Your task to perform on an android device: open a new tab in the chrome app Image 0: 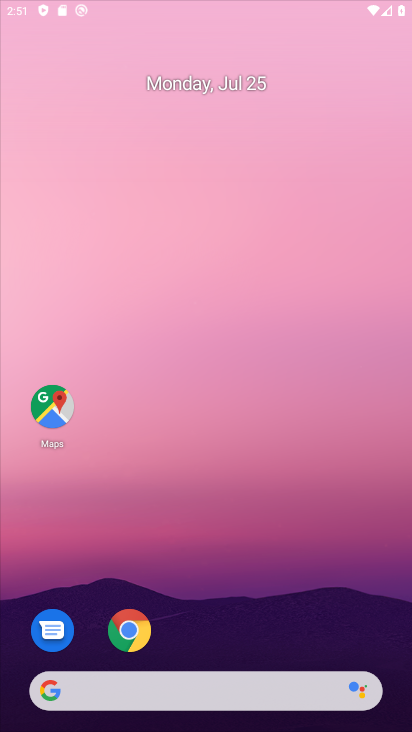
Step 0: drag from (269, 221) to (269, 182)
Your task to perform on an android device: open a new tab in the chrome app Image 1: 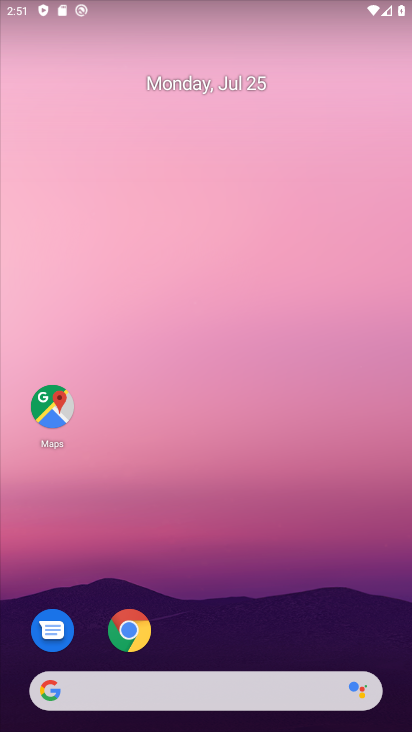
Step 1: drag from (297, 587) to (255, 220)
Your task to perform on an android device: open a new tab in the chrome app Image 2: 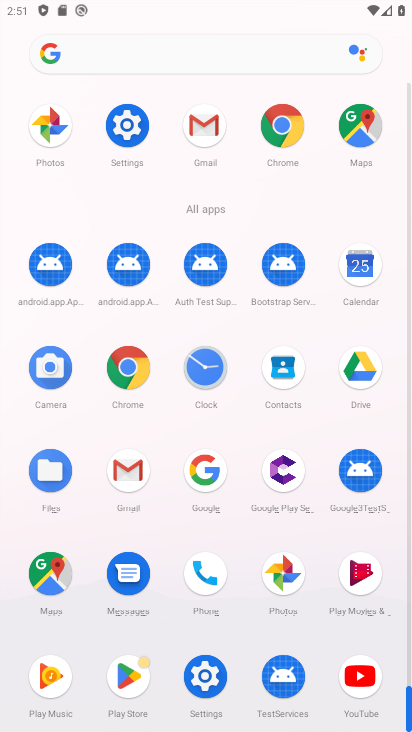
Step 2: click (285, 131)
Your task to perform on an android device: open a new tab in the chrome app Image 3: 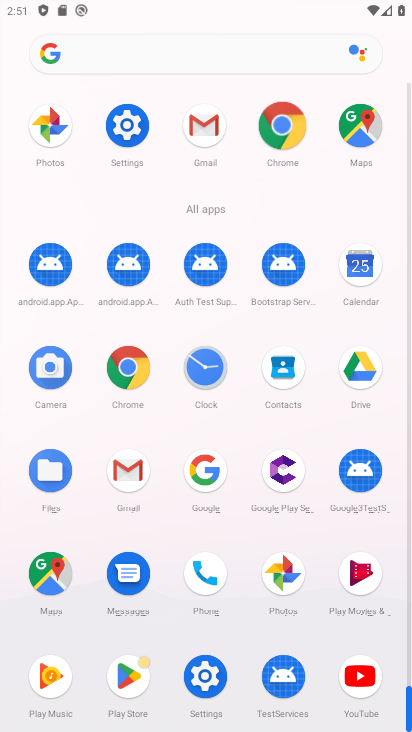
Step 3: click (295, 132)
Your task to perform on an android device: open a new tab in the chrome app Image 4: 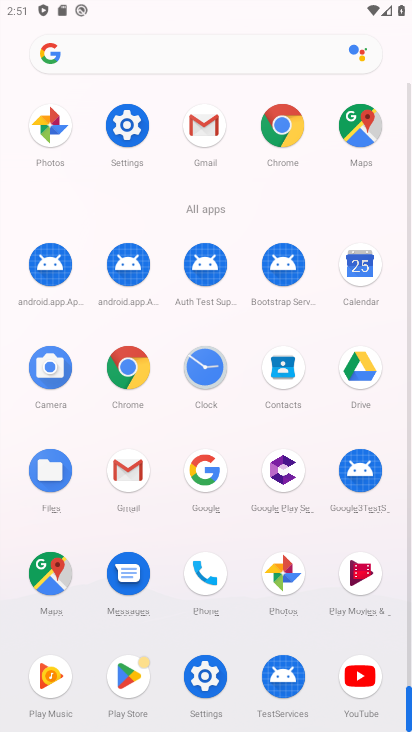
Step 4: click (286, 130)
Your task to perform on an android device: open a new tab in the chrome app Image 5: 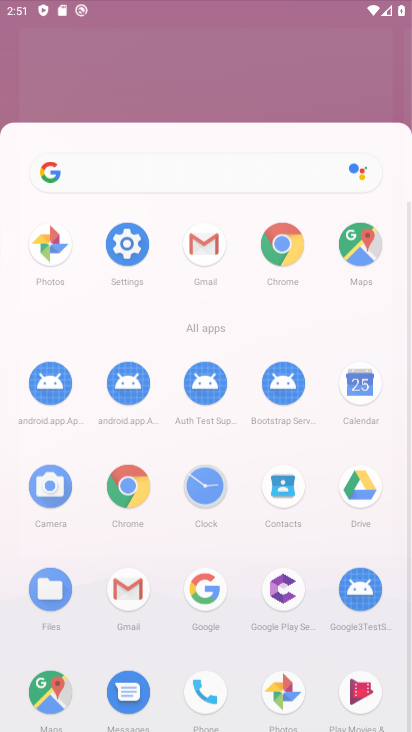
Step 5: click (300, 101)
Your task to perform on an android device: open a new tab in the chrome app Image 6: 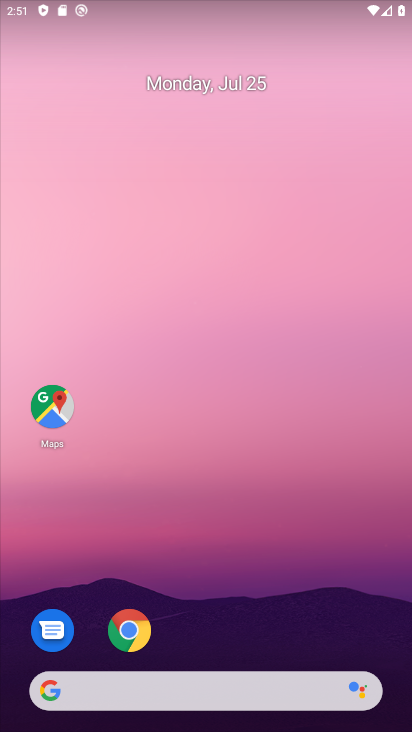
Step 6: drag from (268, 575) to (194, 227)
Your task to perform on an android device: open a new tab in the chrome app Image 7: 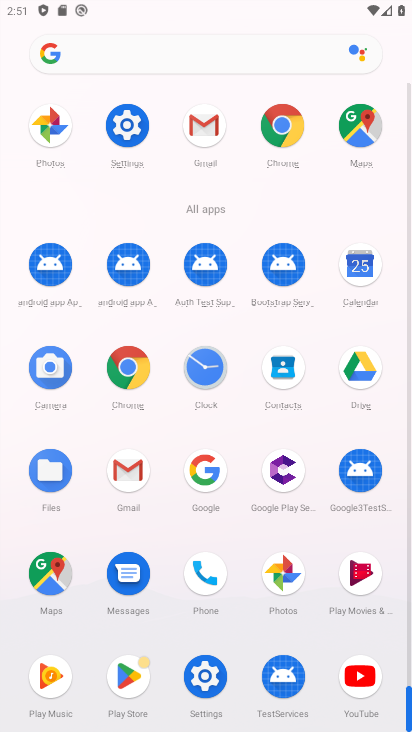
Step 7: click (274, 134)
Your task to perform on an android device: open a new tab in the chrome app Image 8: 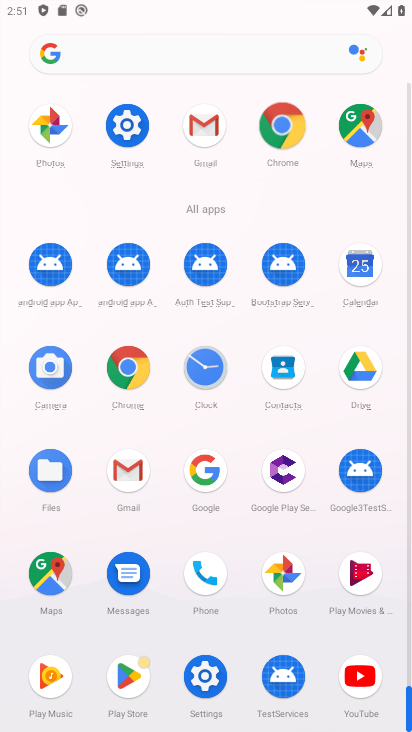
Step 8: click (285, 128)
Your task to perform on an android device: open a new tab in the chrome app Image 9: 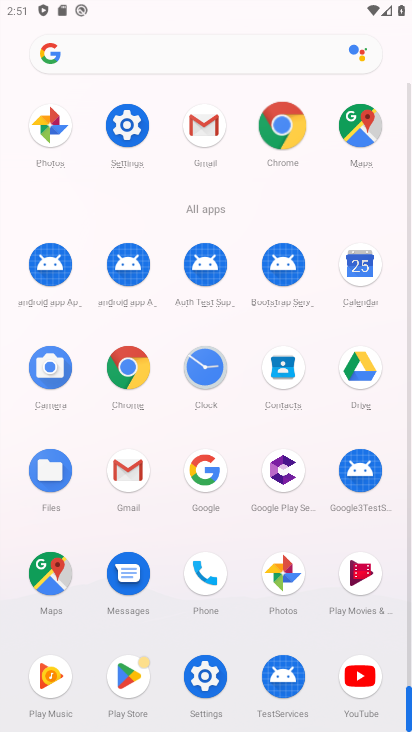
Step 9: click (285, 128)
Your task to perform on an android device: open a new tab in the chrome app Image 10: 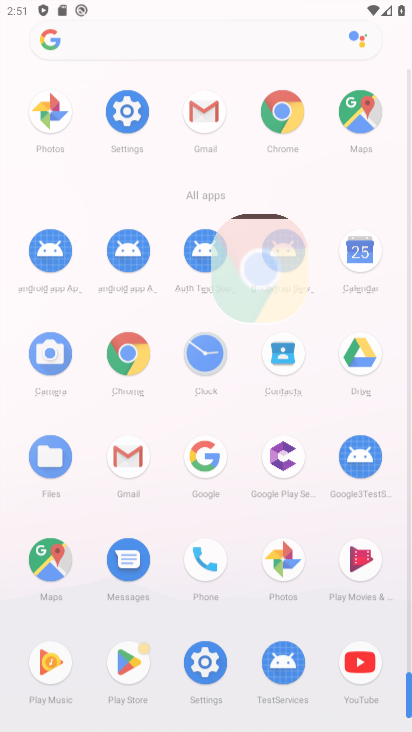
Step 10: click (285, 128)
Your task to perform on an android device: open a new tab in the chrome app Image 11: 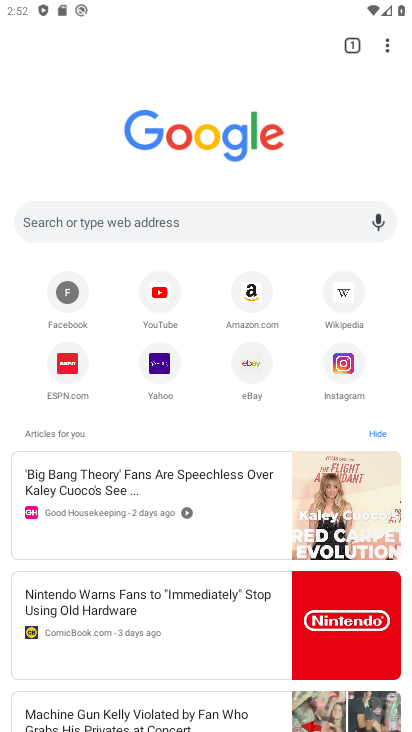
Step 11: click (383, 42)
Your task to perform on an android device: open a new tab in the chrome app Image 12: 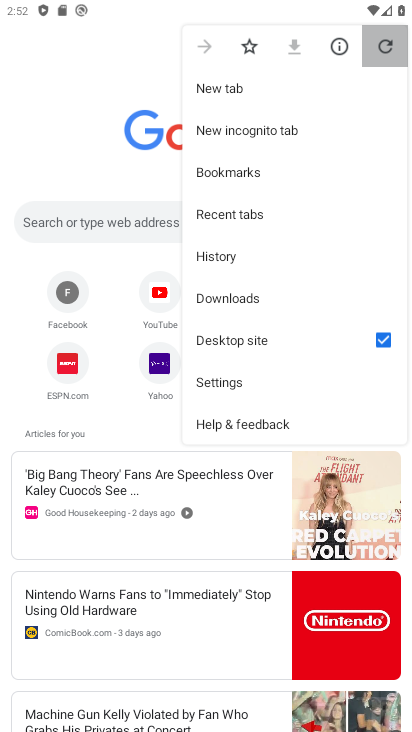
Step 12: click (395, 59)
Your task to perform on an android device: open a new tab in the chrome app Image 13: 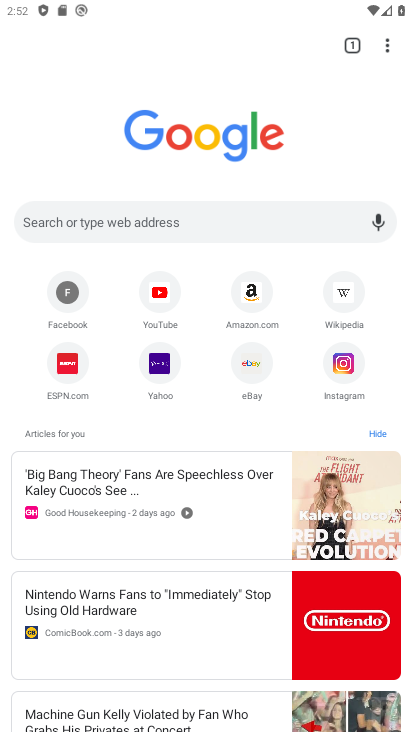
Step 13: click (409, 73)
Your task to perform on an android device: open a new tab in the chrome app Image 14: 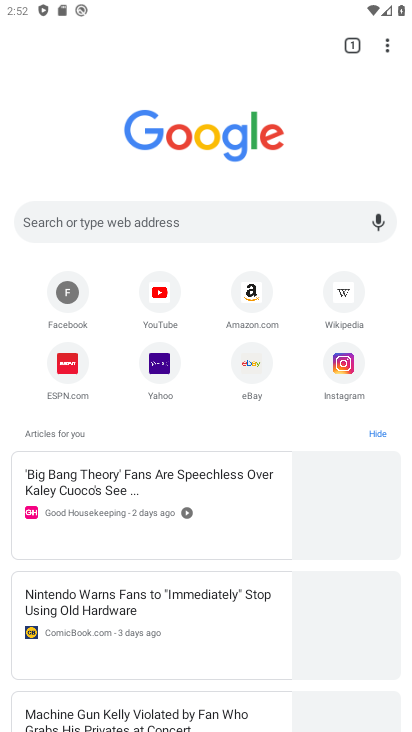
Step 14: click (390, 44)
Your task to perform on an android device: open a new tab in the chrome app Image 15: 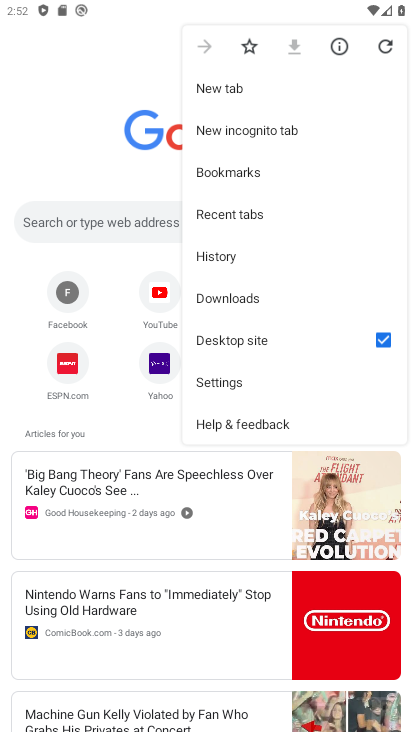
Step 15: drag from (395, 49) to (212, 85)
Your task to perform on an android device: open a new tab in the chrome app Image 16: 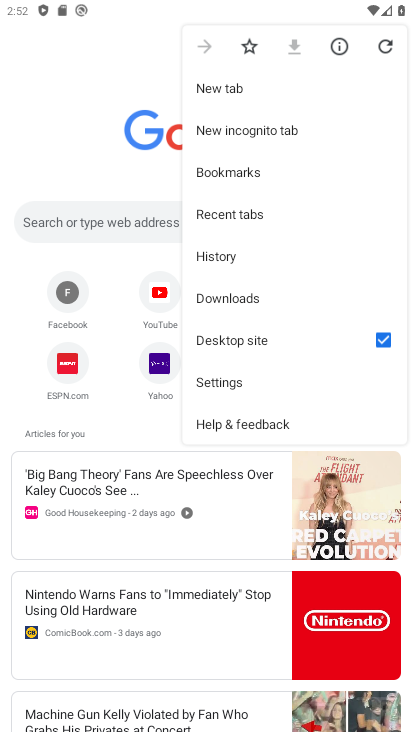
Step 16: click (213, 87)
Your task to perform on an android device: open a new tab in the chrome app Image 17: 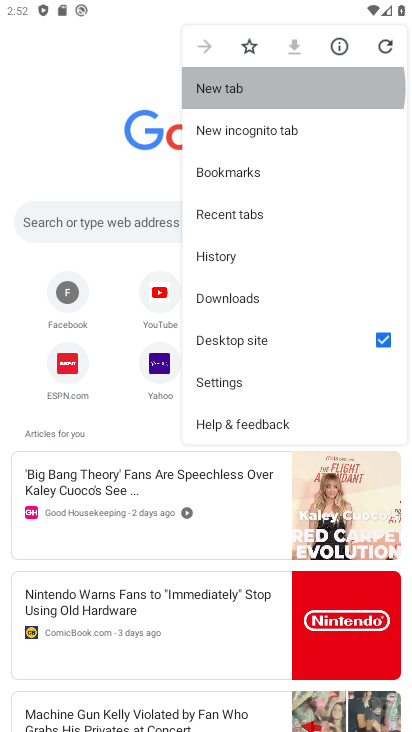
Step 17: click (220, 90)
Your task to perform on an android device: open a new tab in the chrome app Image 18: 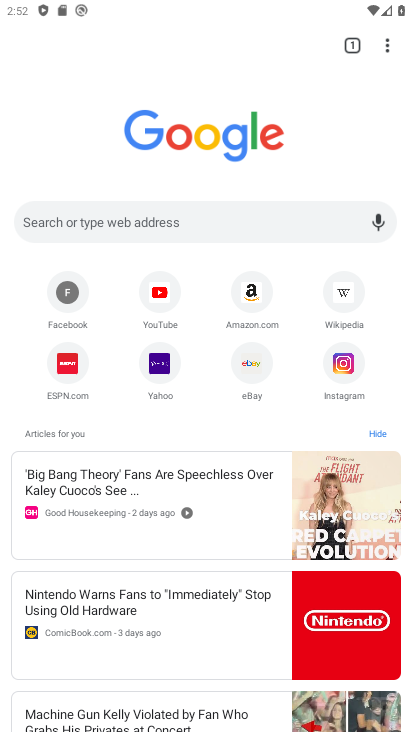
Step 18: click (222, 90)
Your task to perform on an android device: open a new tab in the chrome app Image 19: 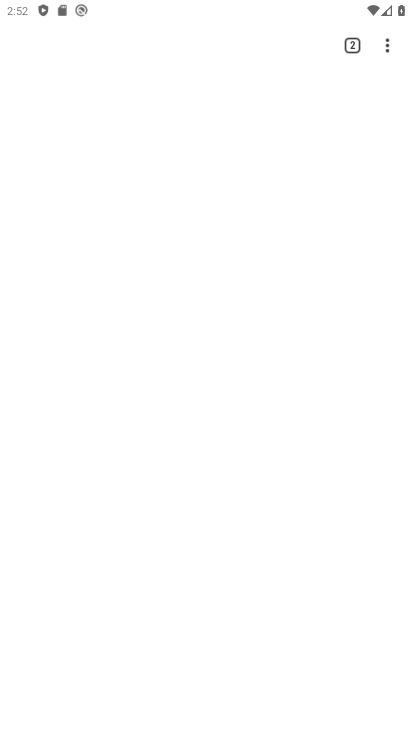
Step 19: click (224, 87)
Your task to perform on an android device: open a new tab in the chrome app Image 20: 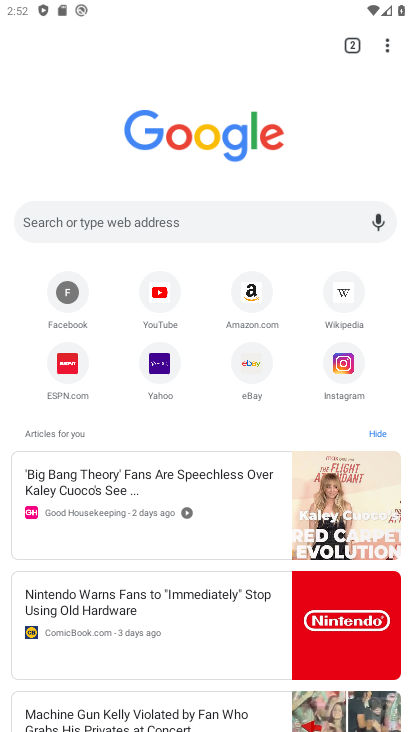
Step 20: task complete